Your task to perform on an android device: What's on the menu at Chick-fil-A? Image 0: 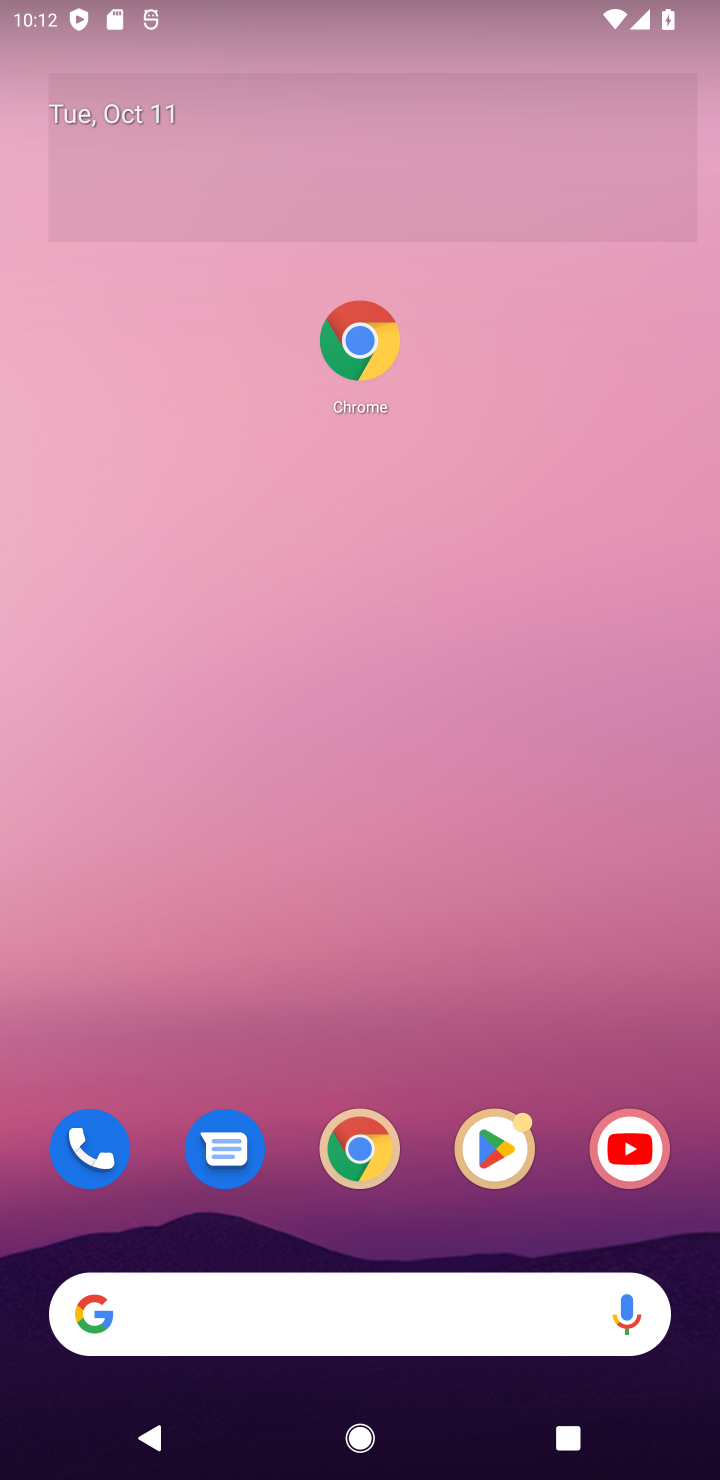
Step 0: drag from (235, 613) to (190, 1)
Your task to perform on an android device: What's on the menu at Chick-fil-A? Image 1: 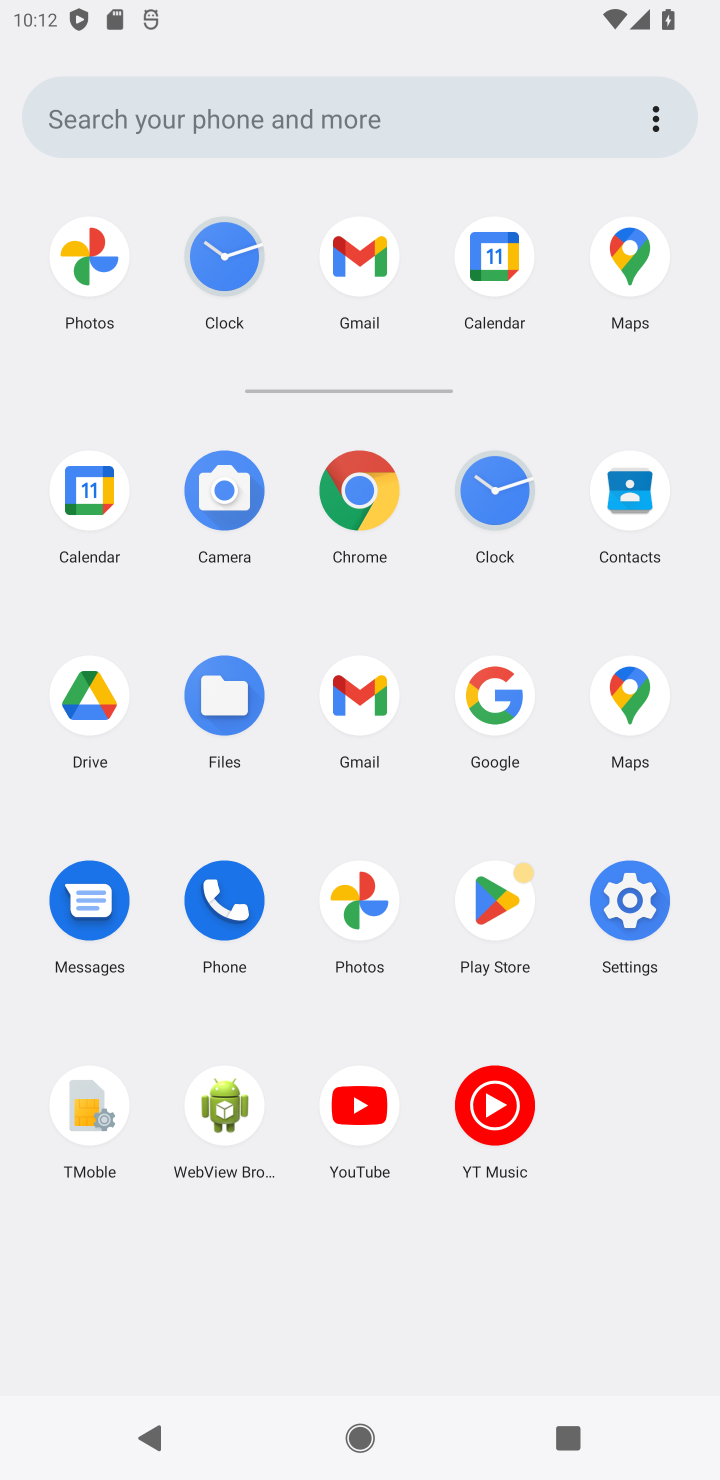
Step 1: click (372, 491)
Your task to perform on an android device: What's on the menu at Chick-fil-A? Image 2: 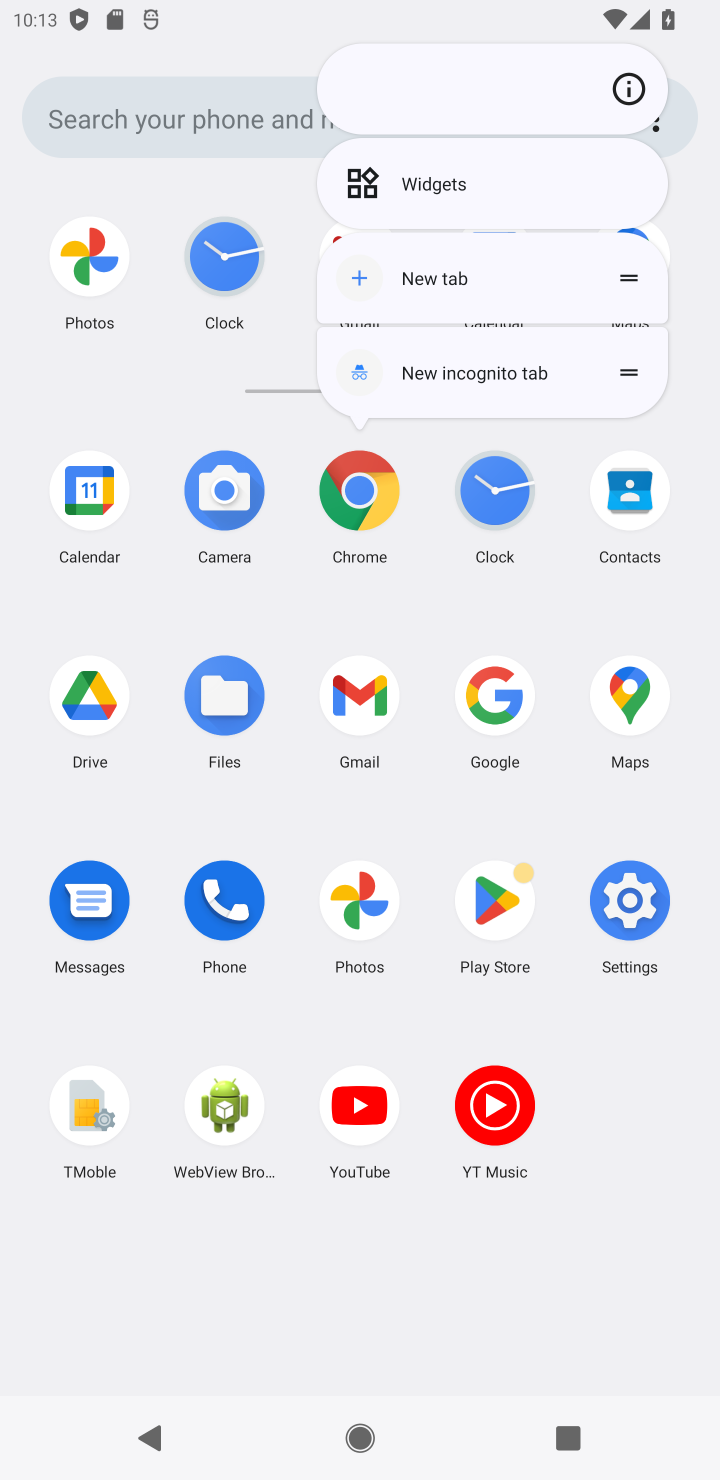
Step 2: click (353, 517)
Your task to perform on an android device: What's on the menu at Chick-fil-A? Image 3: 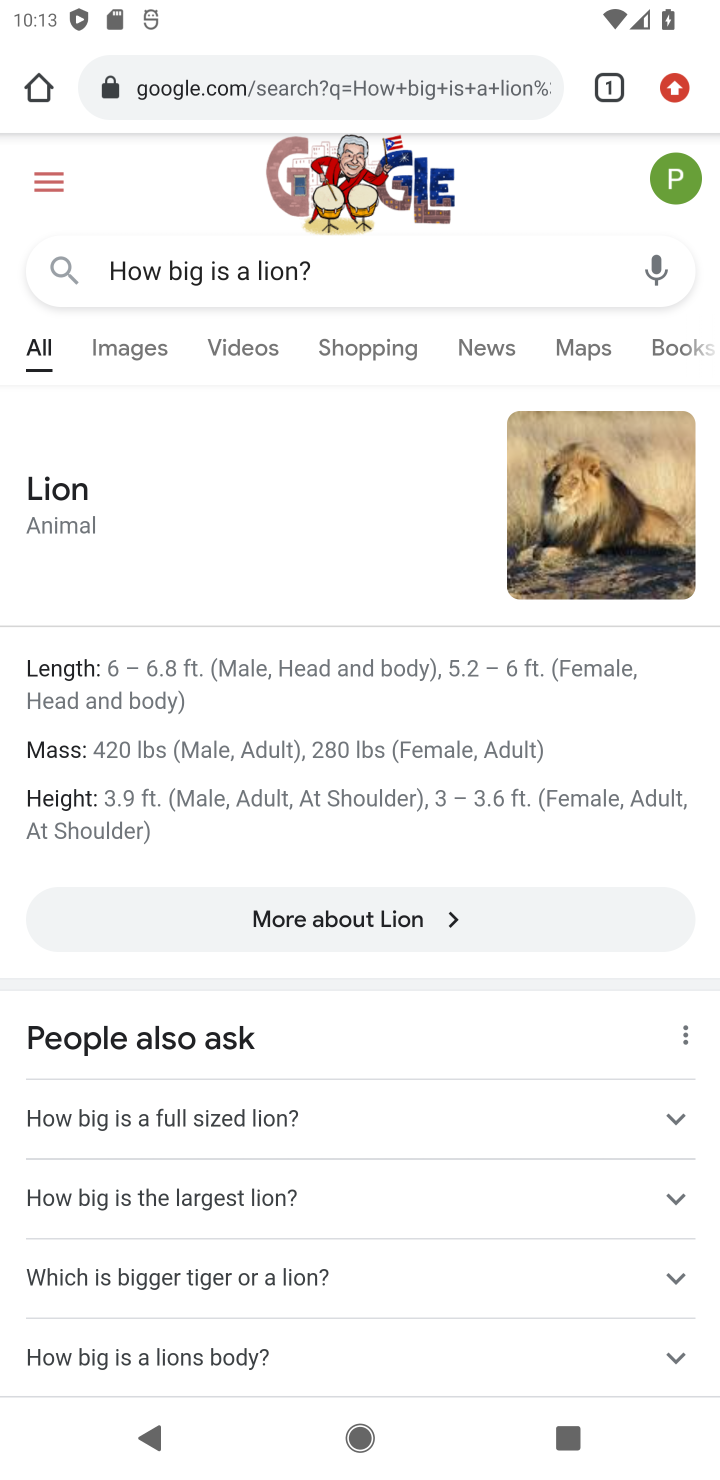
Step 3: click (315, 91)
Your task to perform on an android device: What's on the menu at Chick-fil-A? Image 4: 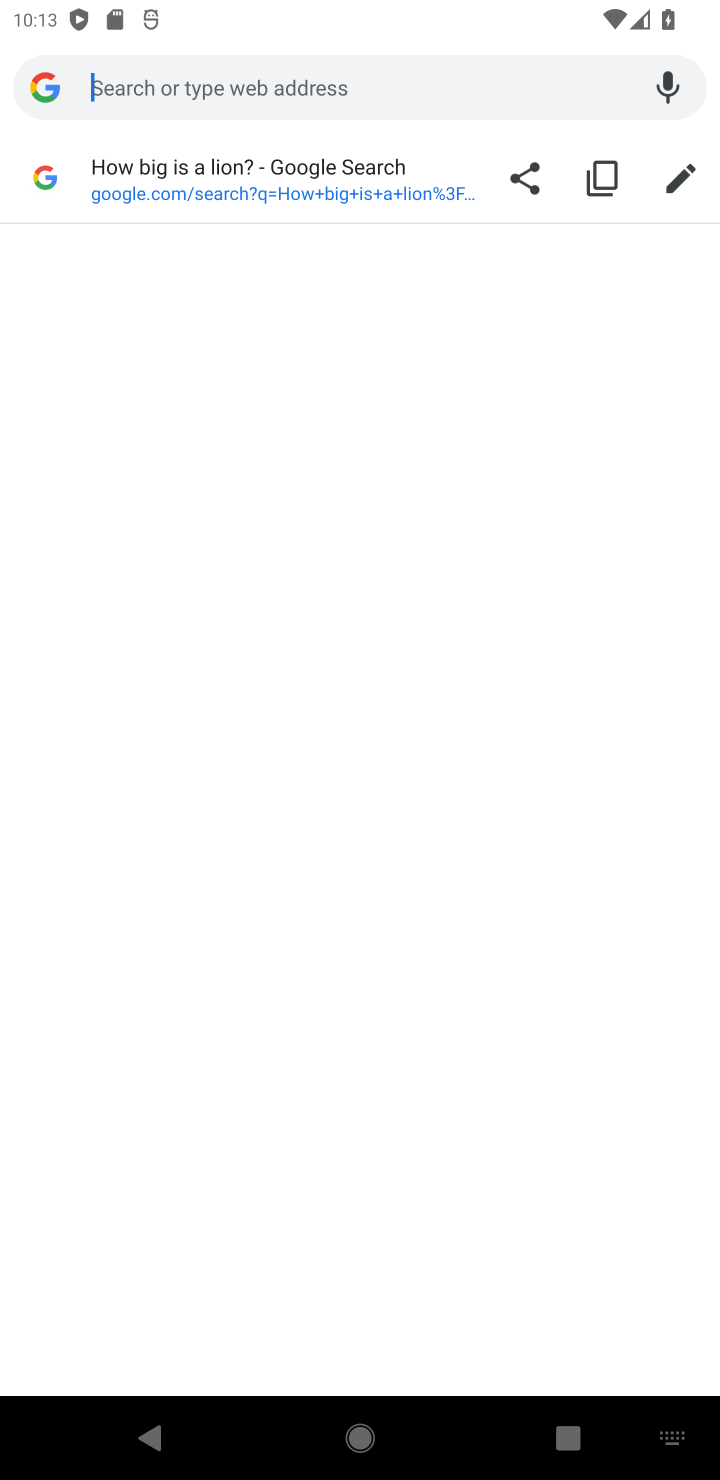
Step 4: type "What's on the menu at Chick-fil-A?"
Your task to perform on an android device: What's on the menu at Chick-fil-A? Image 5: 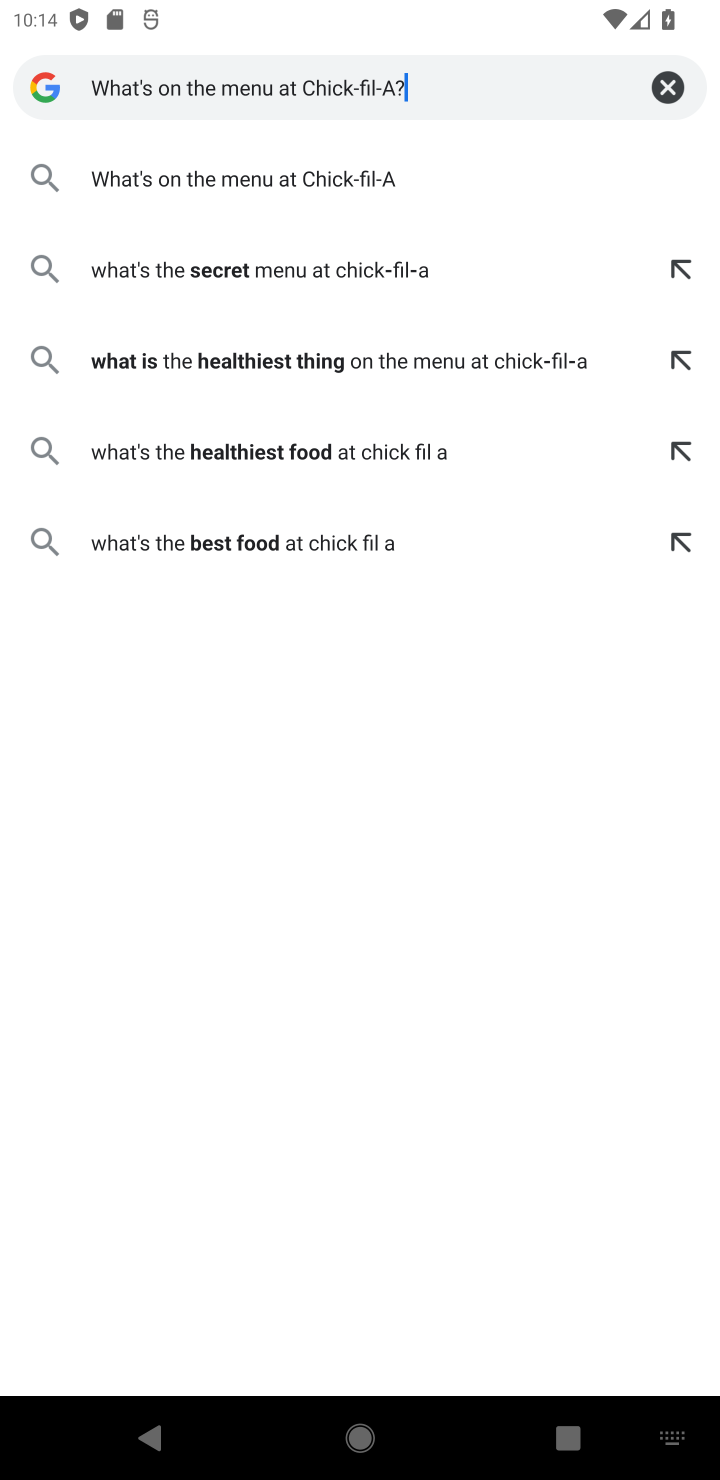
Step 5: press enter
Your task to perform on an android device: What's on the menu at Chick-fil-A? Image 6: 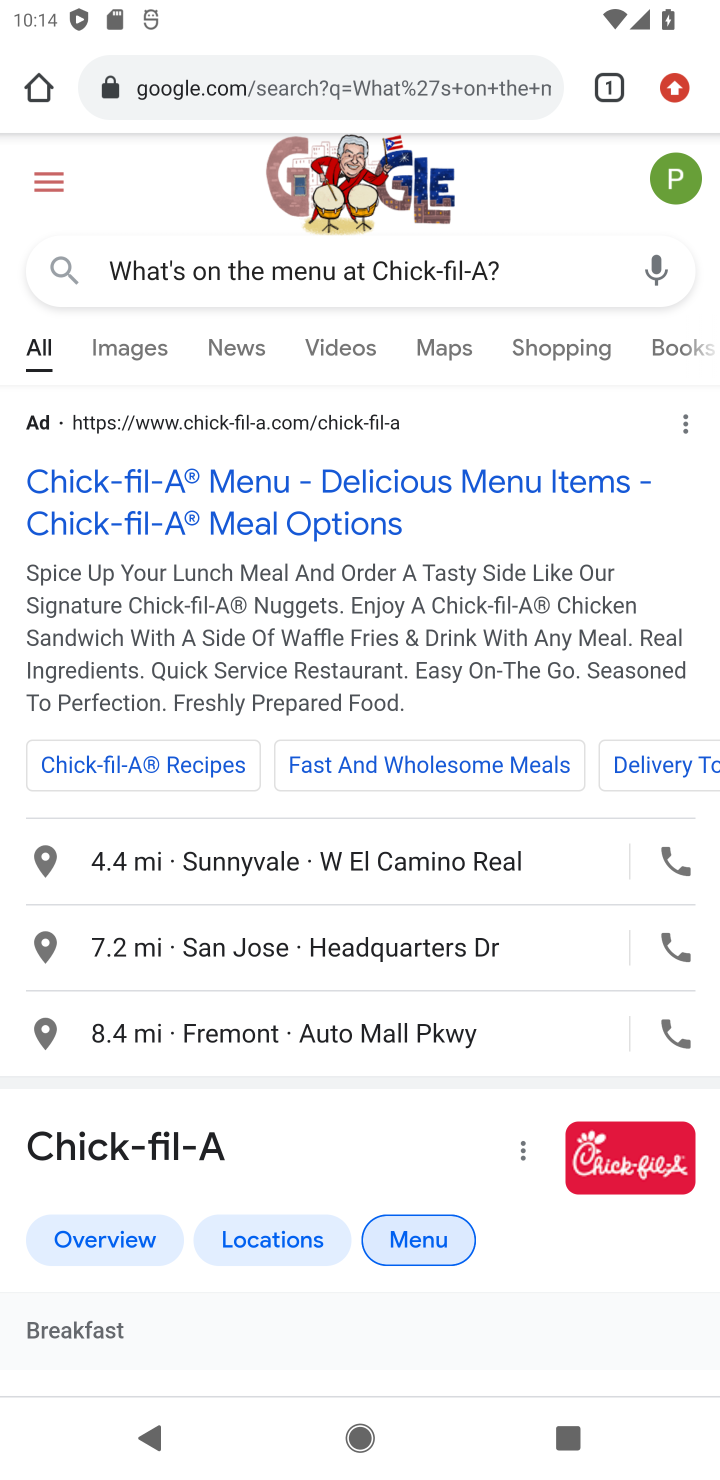
Step 6: task complete